Your task to perform on an android device: toggle sleep mode Image 0: 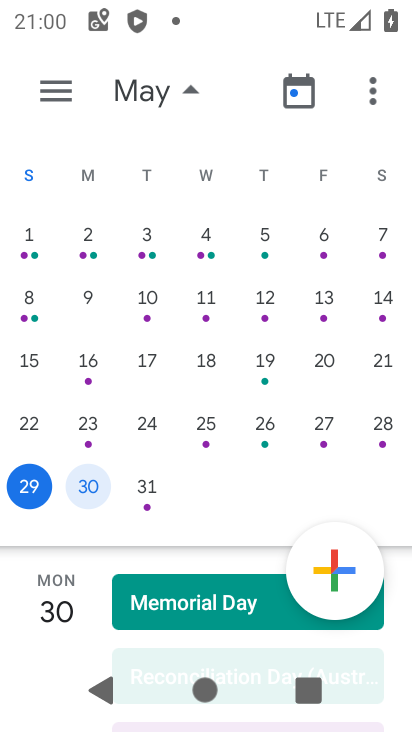
Step 0: press home button
Your task to perform on an android device: toggle sleep mode Image 1: 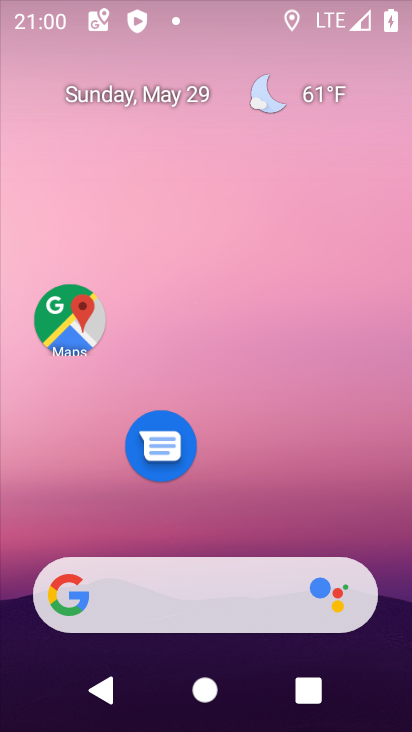
Step 1: drag from (246, 513) to (227, 142)
Your task to perform on an android device: toggle sleep mode Image 2: 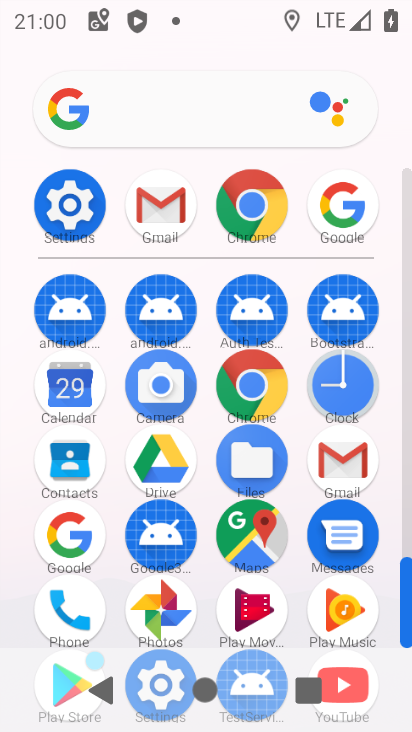
Step 2: click (81, 223)
Your task to perform on an android device: toggle sleep mode Image 3: 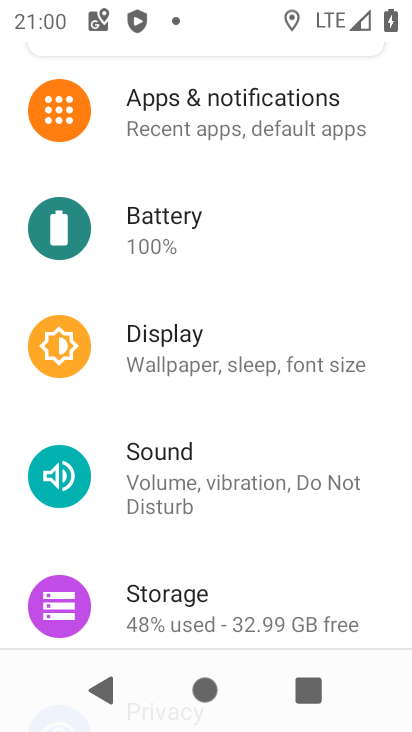
Step 3: click (232, 357)
Your task to perform on an android device: toggle sleep mode Image 4: 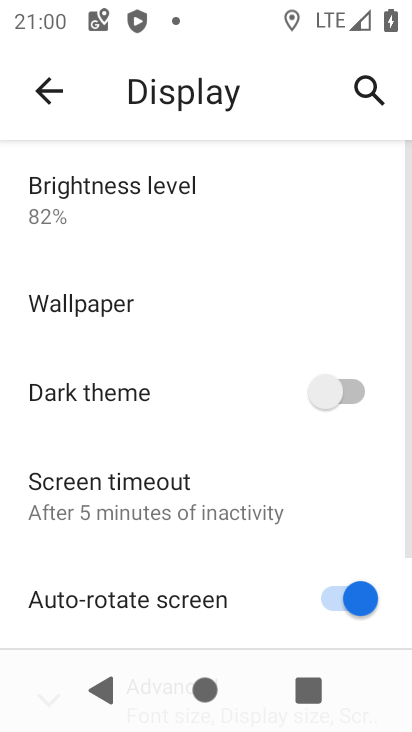
Step 4: click (172, 486)
Your task to perform on an android device: toggle sleep mode Image 5: 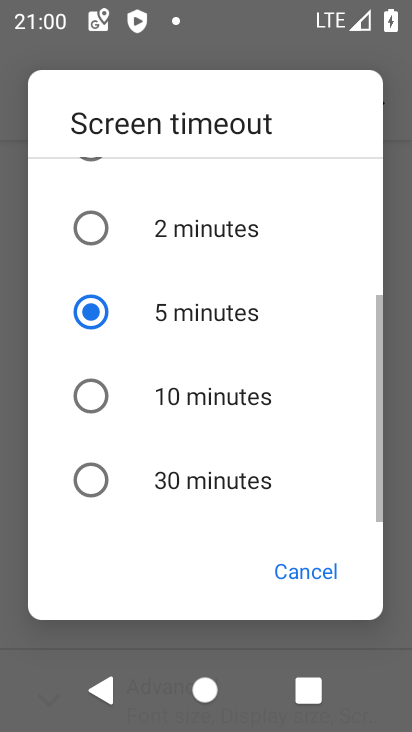
Step 5: click (151, 403)
Your task to perform on an android device: toggle sleep mode Image 6: 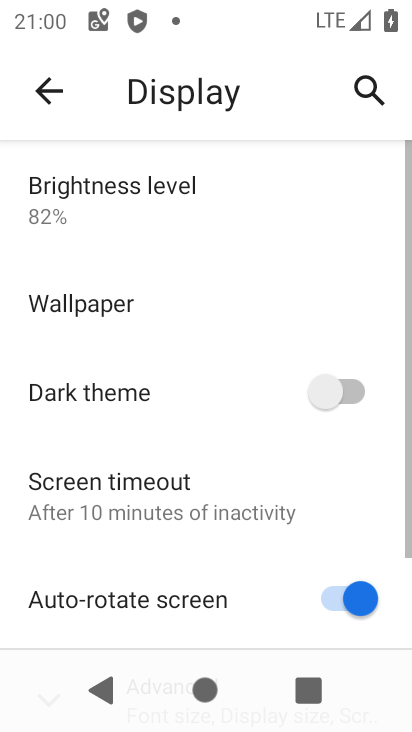
Step 6: task complete